Your task to perform on an android device: What's on my calendar tomorrow? Image 0: 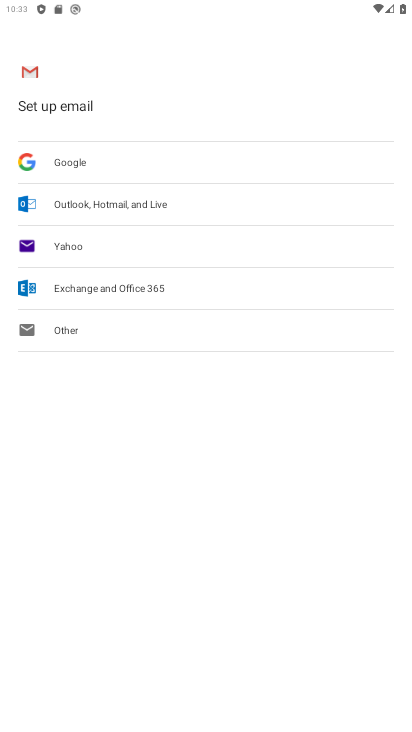
Step 0: press home button
Your task to perform on an android device: What's on my calendar tomorrow? Image 1: 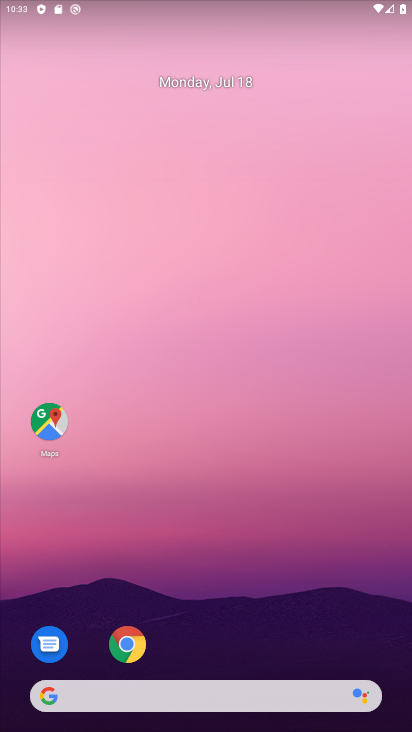
Step 1: drag from (218, 645) to (136, 243)
Your task to perform on an android device: What's on my calendar tomorrow? Image 2: 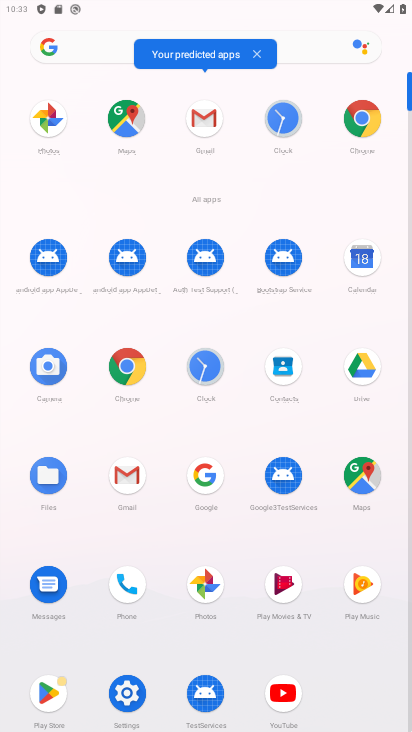
Step 2: click (372, 258)
Your task to perform on an android device: What's on my calendar tomorrow? Image 3: 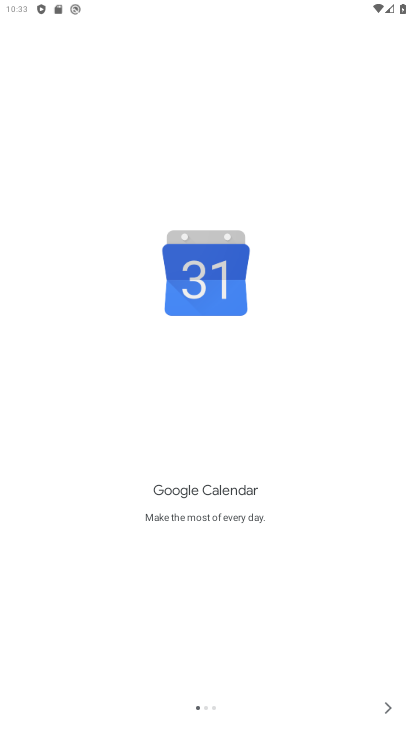
Step 3: click (386, 708)
Your task to perform on an android device: What's on my calendar tomorrow? Image 4: 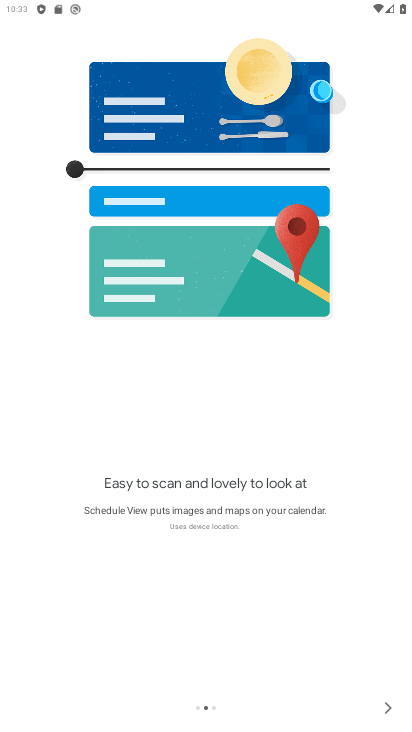
Step 4: click (386, 708)
Your task to perform on an android device: What's on my calendar tomorrow? Image 5: 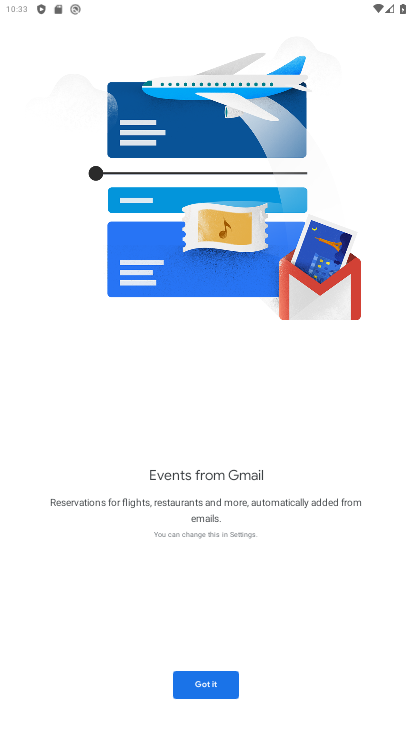
Step 5: click (219, 691)
Your task to perform on an android device: What's on my calendar tomorrow? Image 6: 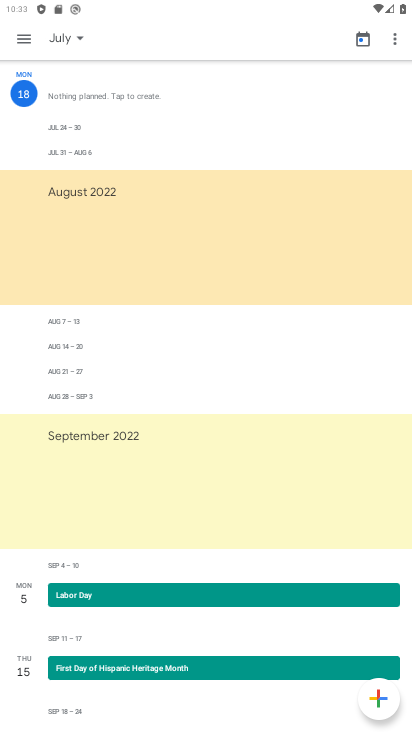
Step 6: click (20, 41)
Your task to perform on an android device: What's on my calendar tomorrow? Image 7: 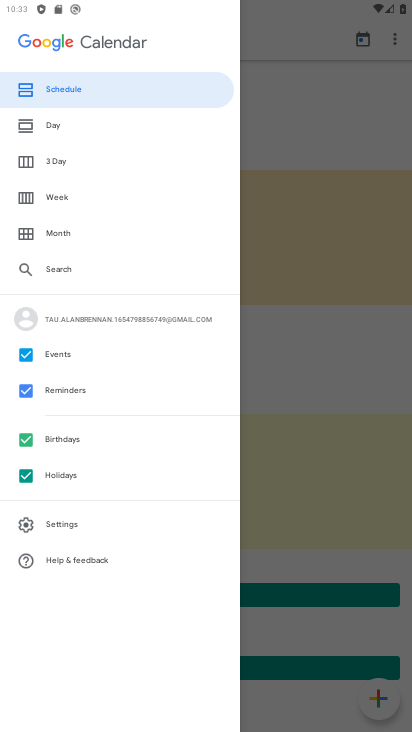
Step 7: click (62, 121)
Your task to perform on an android device: What's on my calendar tomorrow? Image 8: 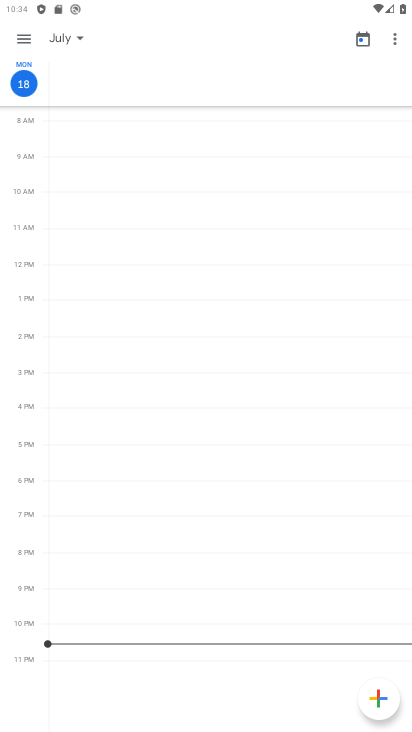
Step 8: task complete